Your task to perform on an android device: Open calendar and show me the fourth week of next month Image 0: 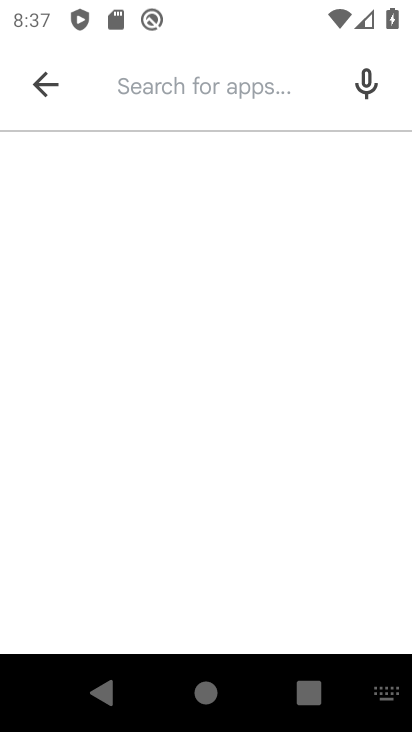
Step 0: press home button
Your task to perform on an android device: Open calendar and show me the fourth week of next month Image 1: 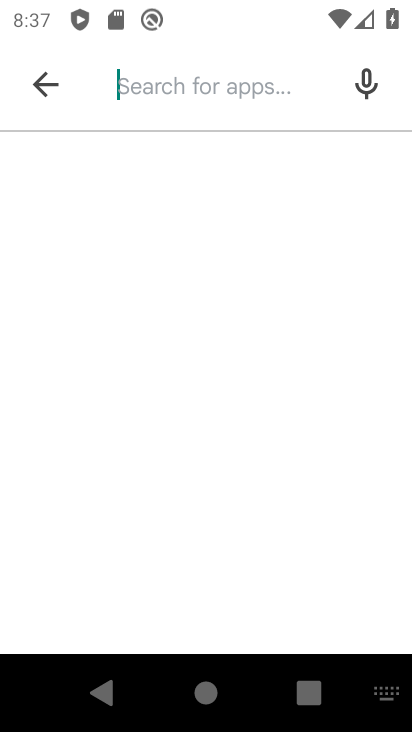
Step 1: press home button
Your task to perform on an android device: Open calendar and show me the fourth week of next month Image 2: 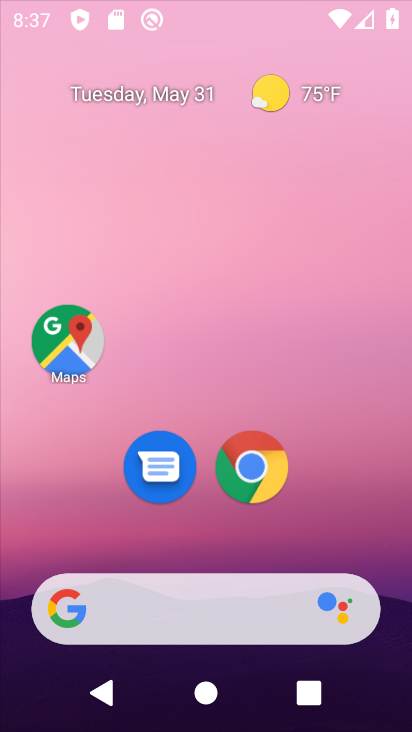
Step 2: press home button
Your task to perform on an android device: Open calendar and show me the fourth week of next month Image 3: 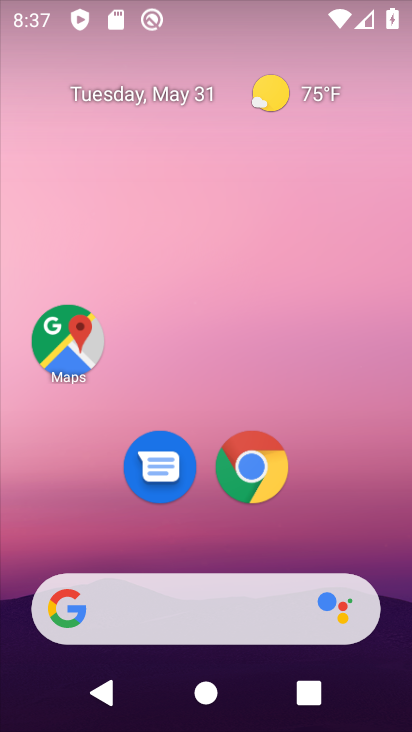
Step 3: drag from (239, 539) to (322, 70)
Your task to perform on an android device: Open calendar and show me the fourth week of next month Image 4: 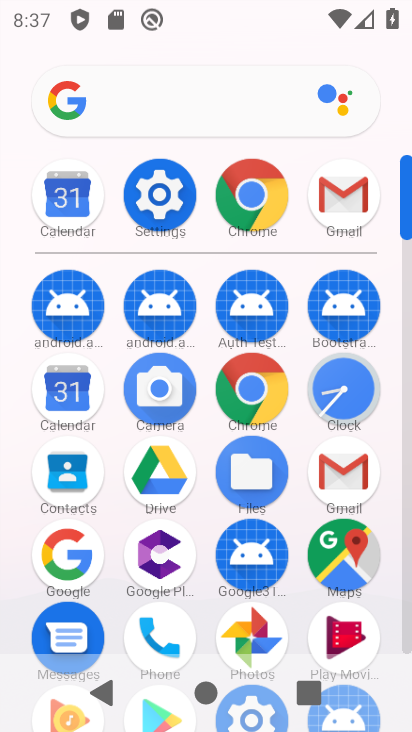
Step 4: click (88, 401)
Your task to perform on an android device: Open calendar and show me the fourth week of next month Image 5: 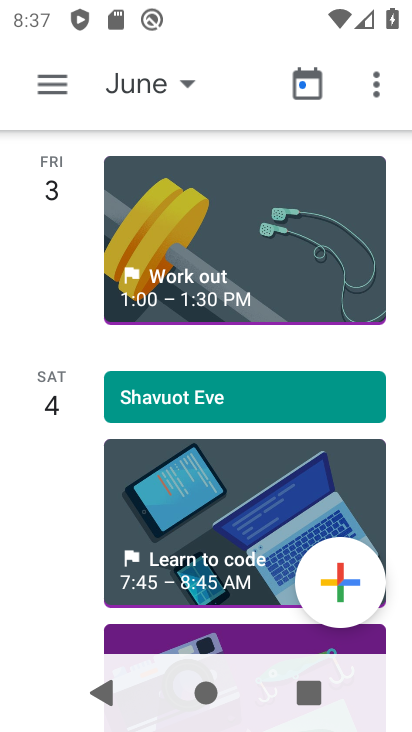
Step 5: click (189, 98)
Your task to perform on an android device: Open calendar and show me the fourth week of next month Image 6: 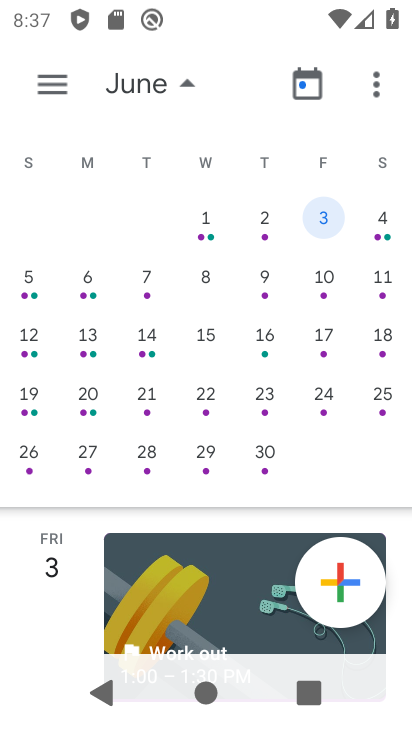
Step 6: drag from (288, 305) to (3, 304)
Your task to perform on an android device: Open calendar and show me the fourth week of next month Image 7: 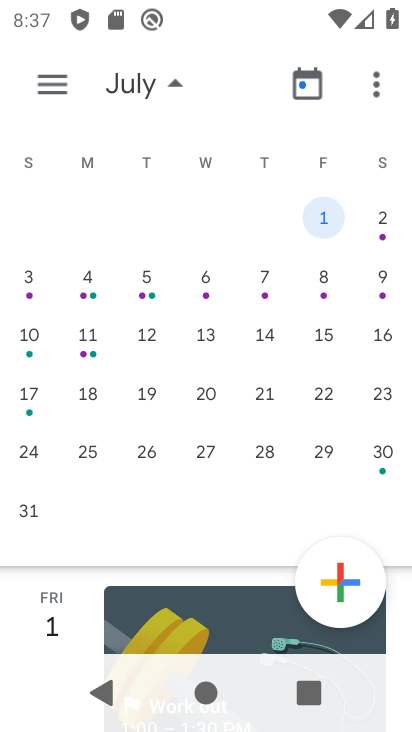
Step 7: click (271, 407)
Your task to perform on an android device: Open calendar and show me the fourth week of next month Image 8: 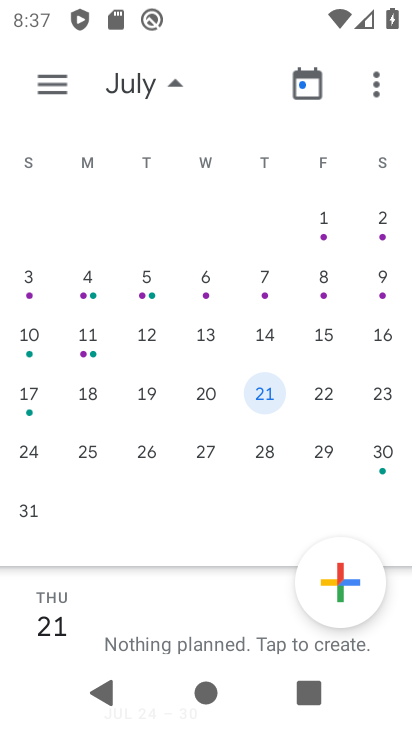
Step 8: task complete